Your task to perform on an android device: Go to location settings Image 0: 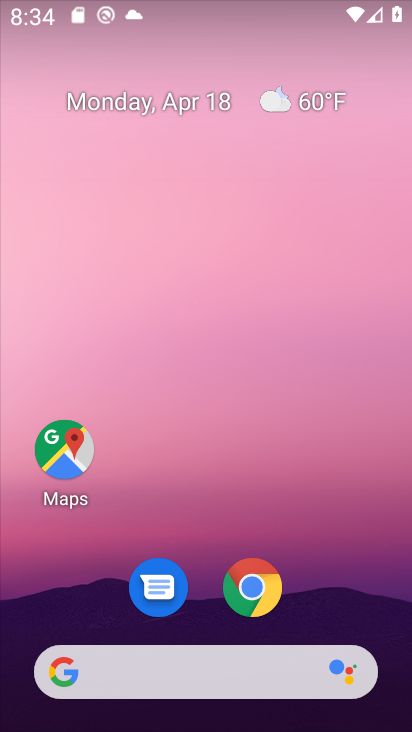
Step 0: drag from (342, 611) to (205, 109)
Your task to perform on an android device: Go to location settings Image 1: 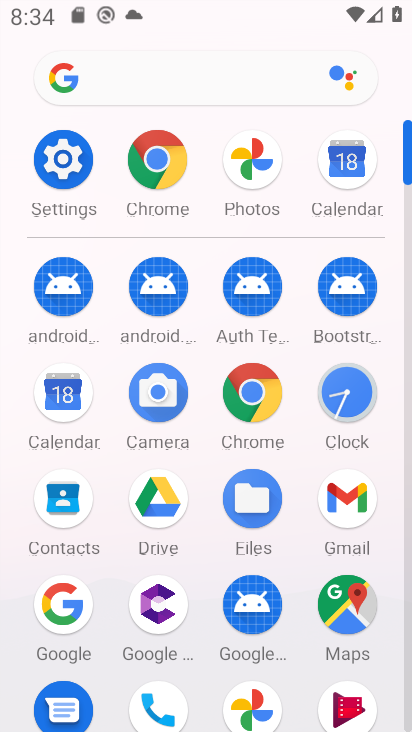
Step 1: click (71, 175)
Your task to perform on an android device: Go to location settings Image 2: 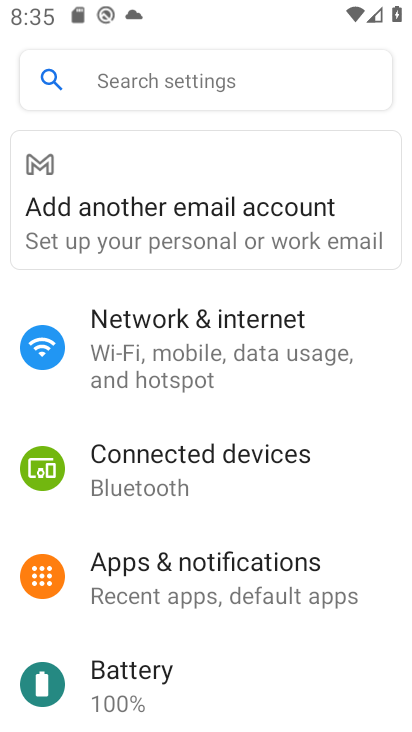
Step 2: drag from (255, 544) to (283, 289)
Your task to perform on an android device: Go to location settings Image 3: 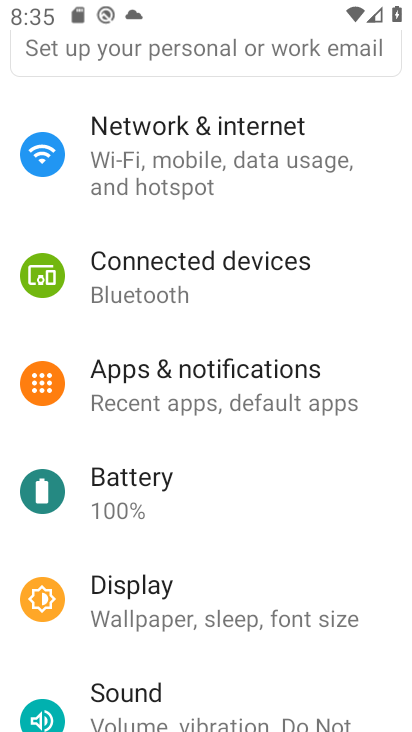
Step 3: drag from (196, 581) to (256, 278)
Your task to perform on an android device: Go to location settings Image 4: 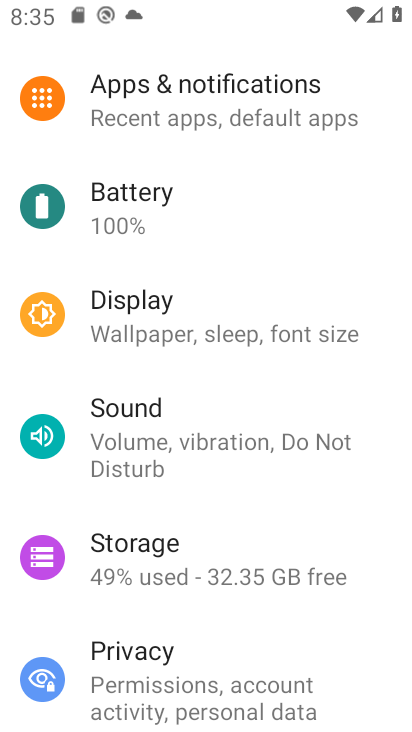
Step 4: drag from (234, 624) to (237, 328)
Your task to perform on an android device: Go to location settings Image 5: 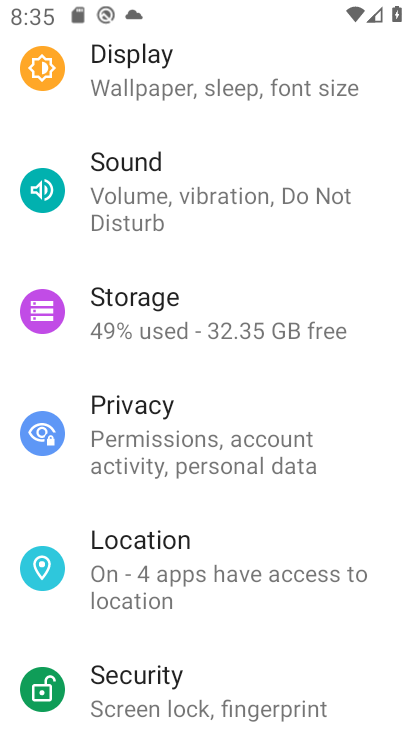
Step 5: click (259, 594)
Your task to perform on an android device: Go to location settings Image 6: 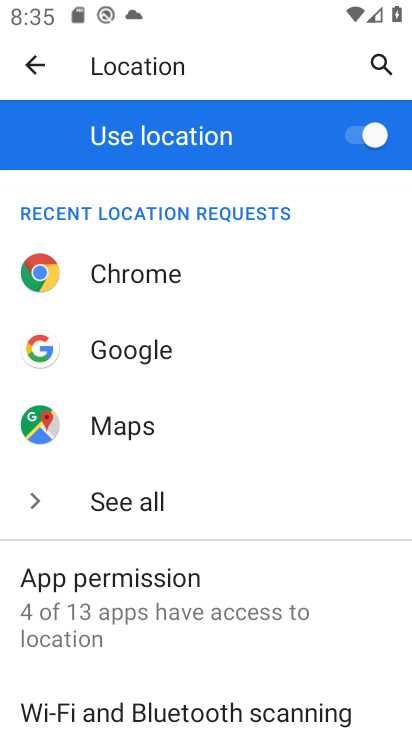
Step 6: task complete